Your task to perform on an android device: Do I have any events tomorrow? Image 0: 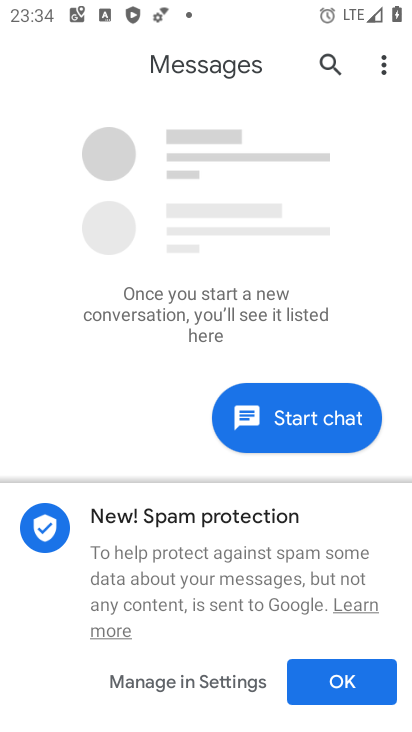
Step 0: press home button
Your task to perform on an android device: Do I have any events tomorrow? Image 1: 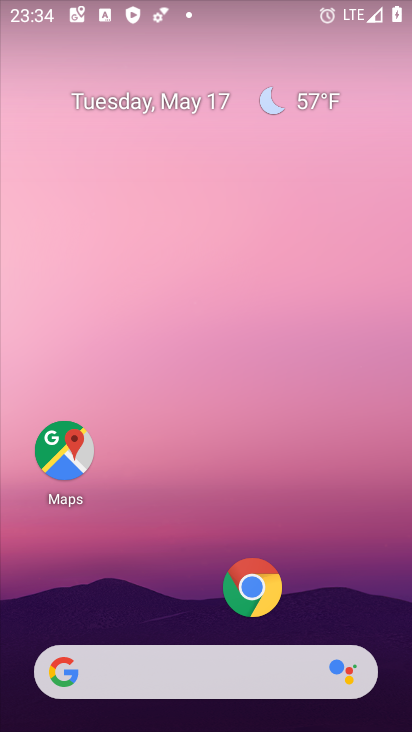
Step 1: drag from (25, 601) to (293, 134)
Your task to perform on an android device: Do I have any events tomorrow? Image 2: 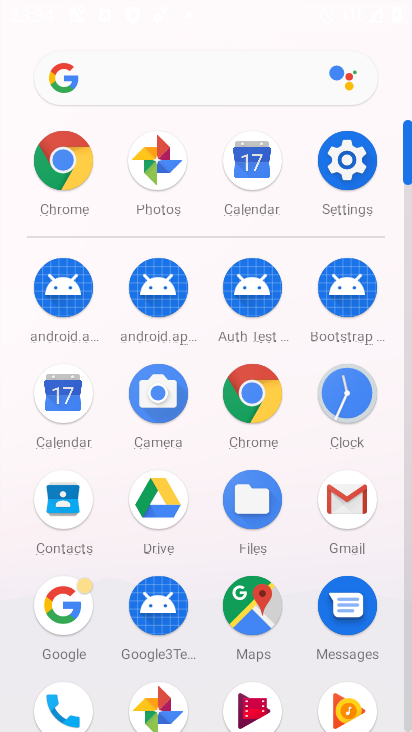
Step 2: click (55, 398)
Your task to perform on an android device: Do I have any events tomorrow? Image 3: 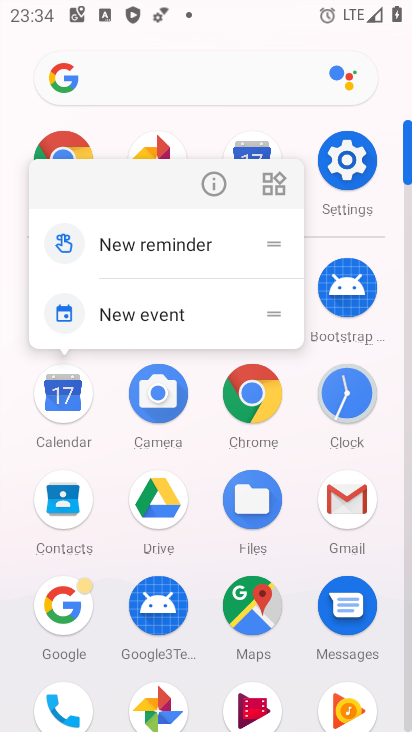
Step 3: click (71, 389)
Your task to perform on an android device: Do I have any events tomorrow? Image 4: 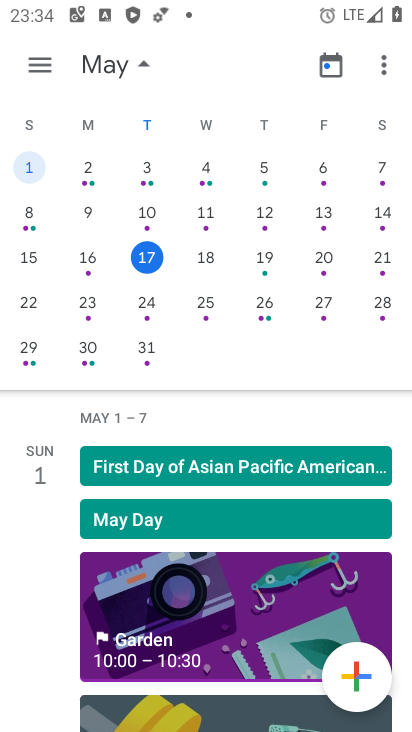
Step 4: click (184, 266)
Your task to perform on an android device: Do I have any events tomorrow? Image 5: 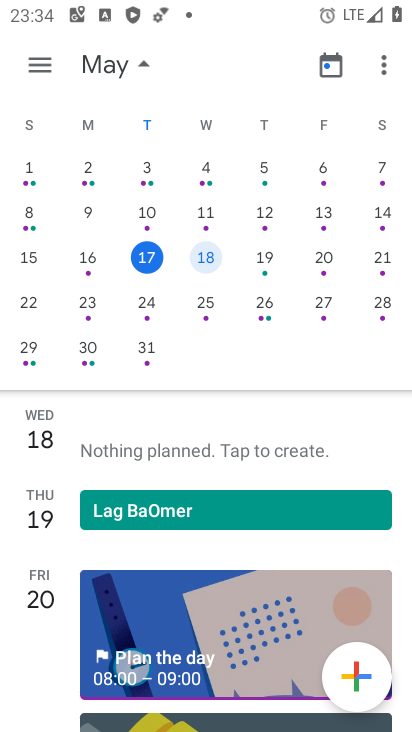
Step 5: click (197, 262)
Your task to perform on an android device: Do I have any events tomorrow? Image 6: 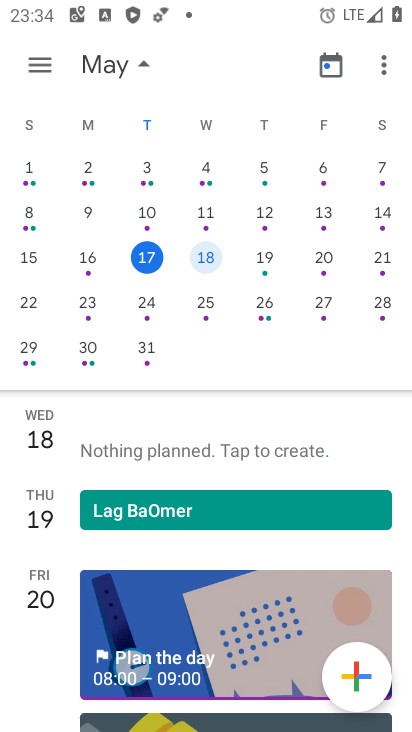
Step 6: task complete